Your task to perform on an android device: Open network settings Image 0: 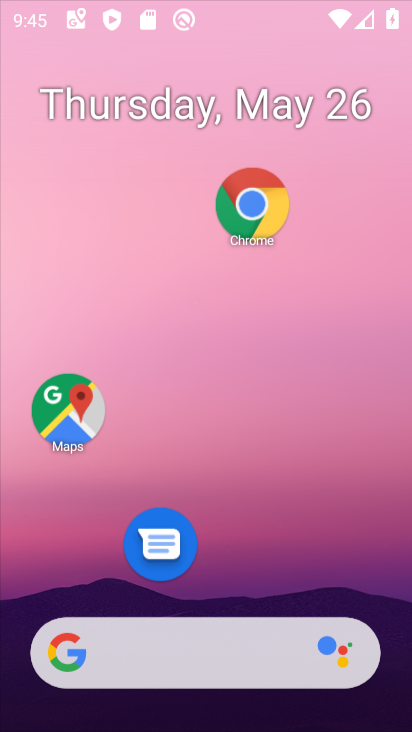
Step 0: press home button
Your task to perform on an android device: Open network settings Image 1: 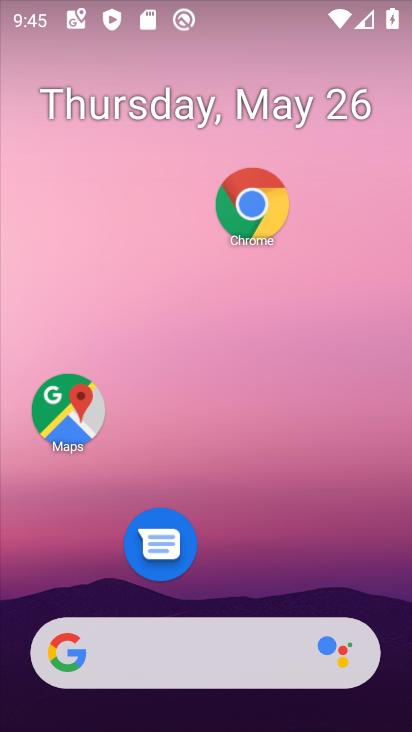
Step 1: drag from (214, 583) to (213, 74)
Your task to perform on an android device: Open network settings Image 2: 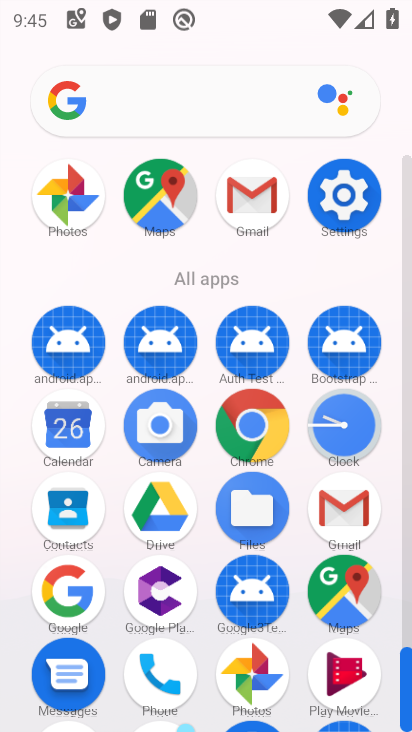
Step 2: click (342, 189)
Your task to perform on an android device: Open network settings Image 3: 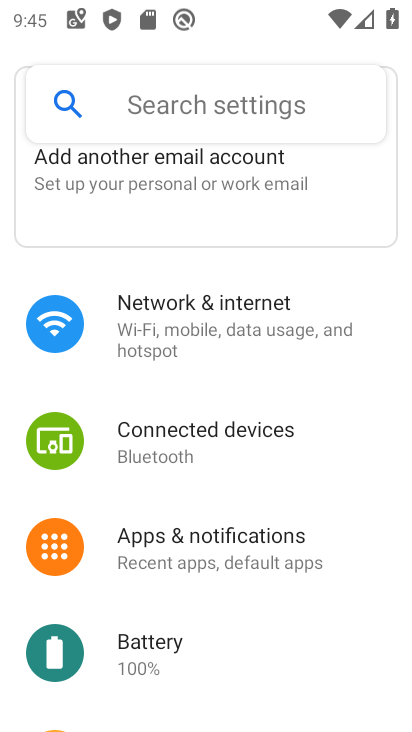
Step 3: click (170, 97)
Your task to perform on an android device: Open network settings Image 4: 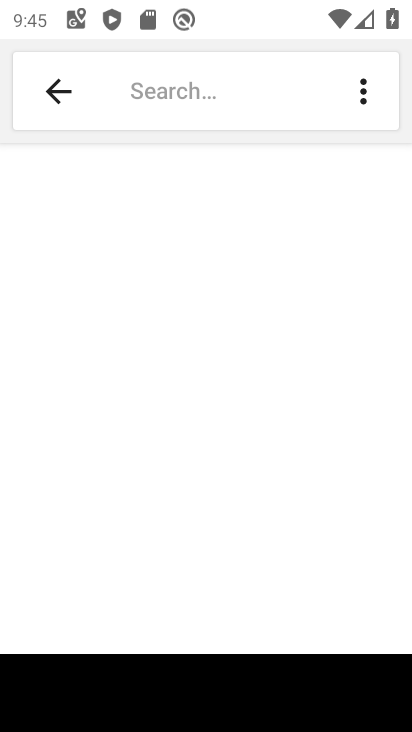
Step 4: type "flashlight"
Your task to perform on an android device: Open network settings Image 5: 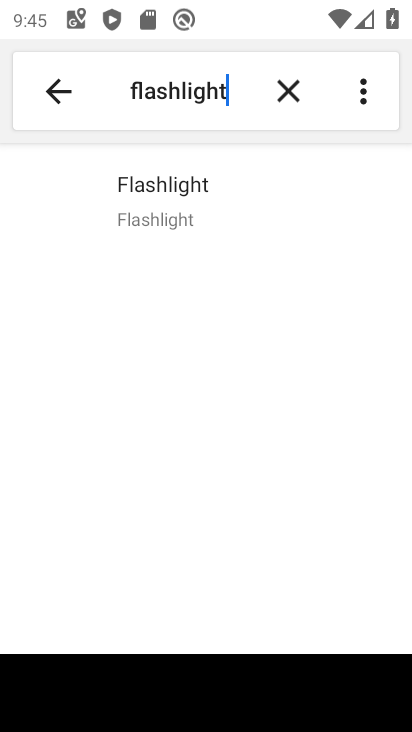
Step 5: click (213, 205)
Your task to perform on an android device: Open network settings Image 6: 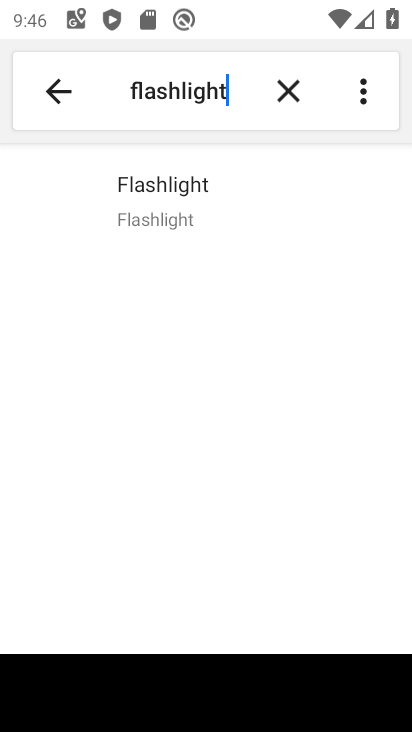
Step 6: click (203, 201)
Your task to perform on an android device: Open network settings Image 7: 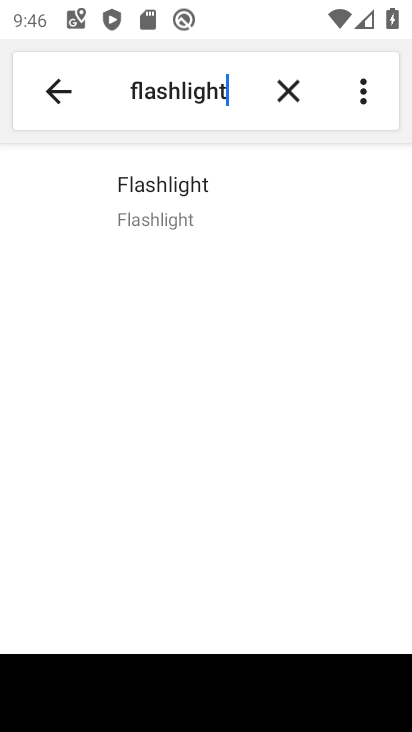
Step 7: task complete